Your task to perform on an android device: Open Chrome and go to settings Image 0: 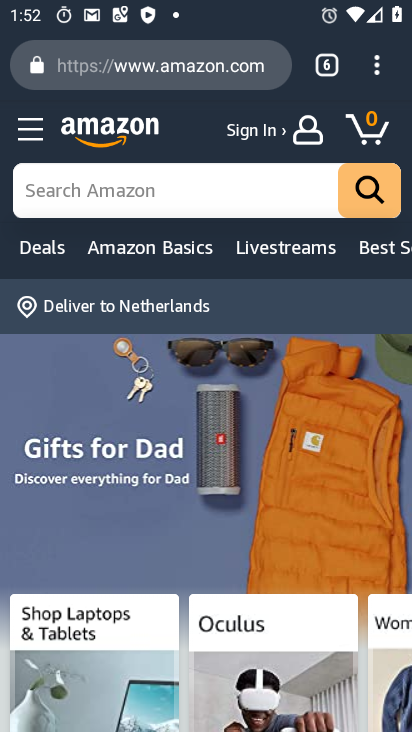
Step 0: press home button
Your task to perform on an android device: Open Chrome and go to settings Image 1: 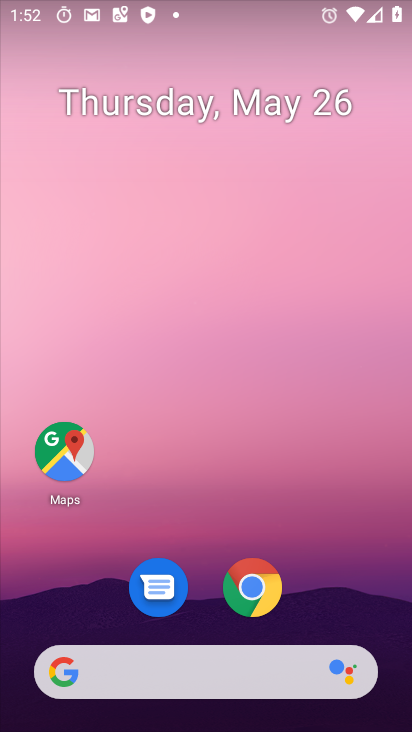
Step 1: drag from (207, 648) to (305, 95)
Your task to perform on an android device: Open Chrome and go to settings Image 2: 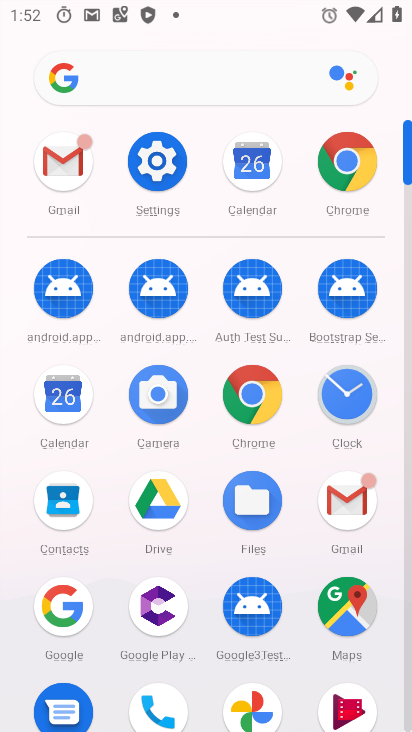
Step 2: click (353, 178)
Your task to perform on an android device: Open Chrome and go to settings Image 3: 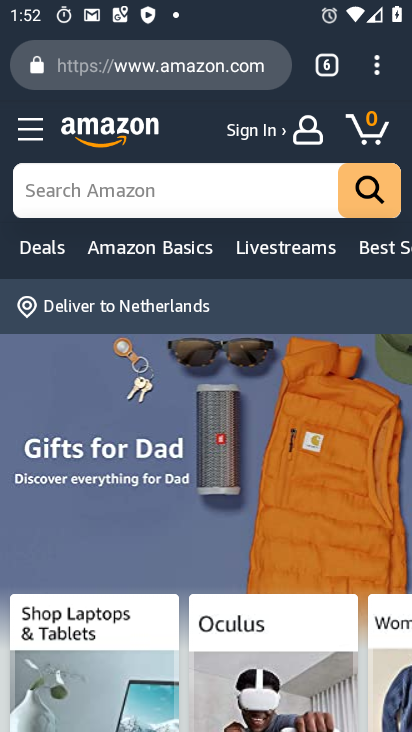
Step 3: click (363, 66)
Your task to perform on an android device: Open Chrome and go to settings Image 4: 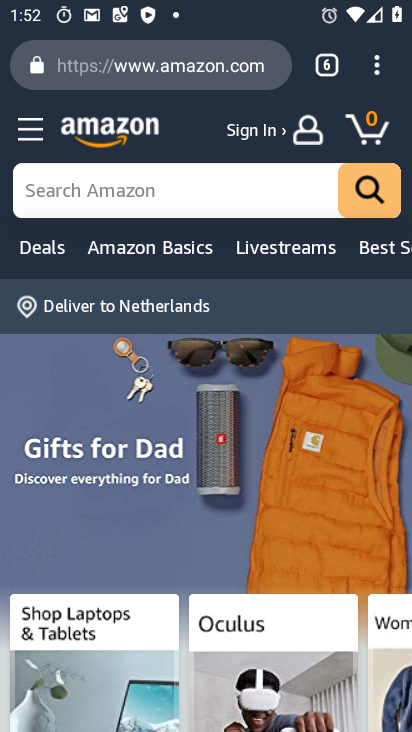
Step 4: click (365, 90)
Your task to perform on an android device: Open Chrome and go to settings Image 5: 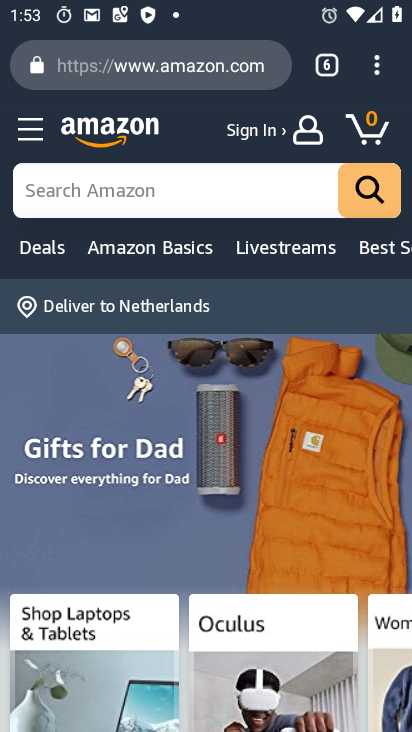
Step 5: click (367, 80)
Your task to perform on an android device: Open Chrome and go to settings Image 6: 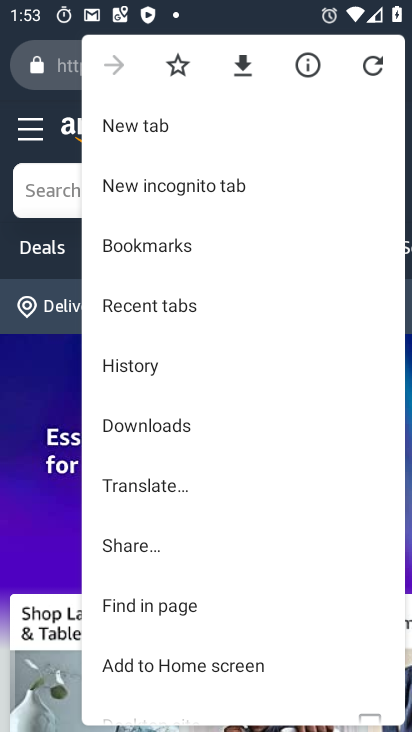
Step 6: drag from (168, 578) to (222, 455)
Your task to perform on an android device: Open Chrome and go to settings Image 7: 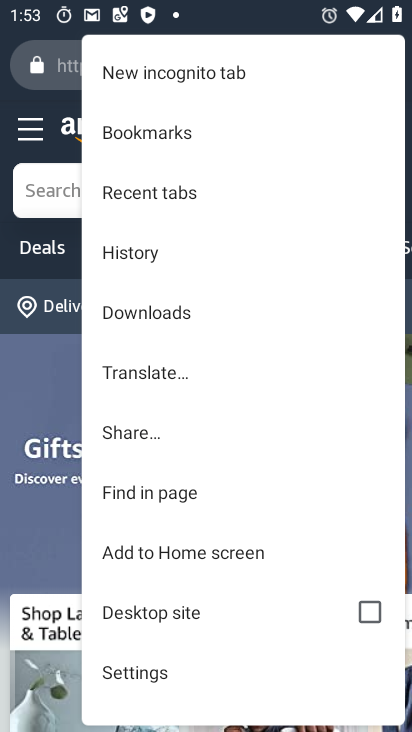
Step 7: click (164, 667)
Your task to perform on an android device: Open Chrome and go to settings Image 8: 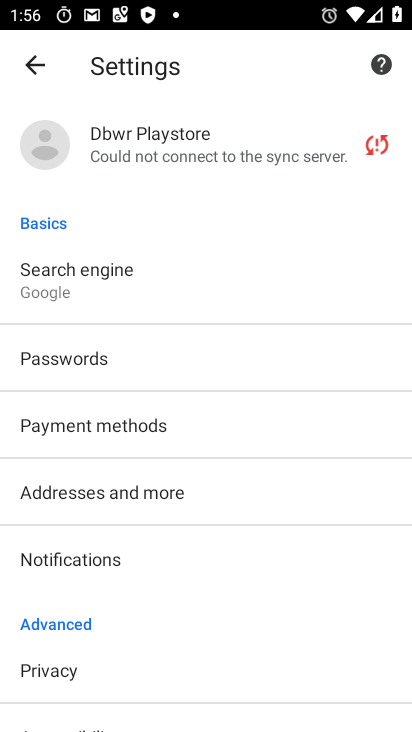
Step 8: task complete